Your task to perform on an android device: check out phone information Image 0: 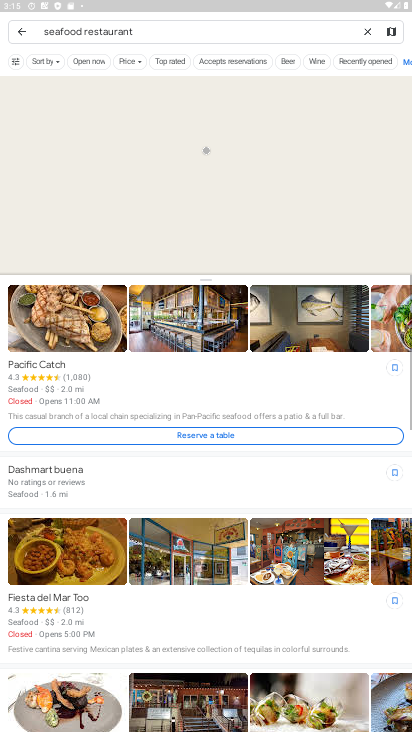
Step 0: press home button
Your task to perform on an android device: check out phone information Image 1: 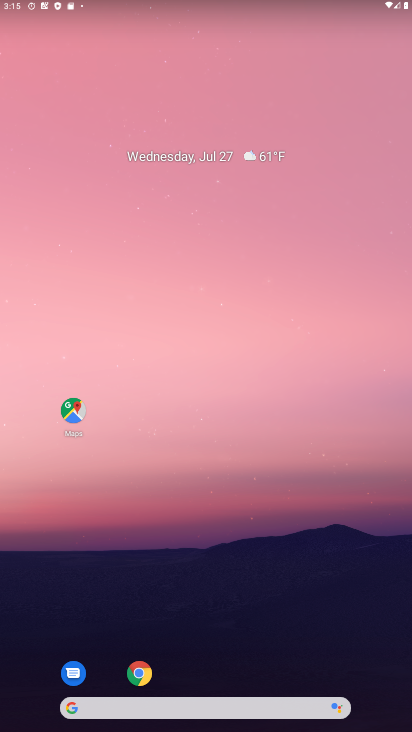
Step 1: drag from (108, 538) to (328, 120)
Your task to perform on an android device: check out phone information Image 2: 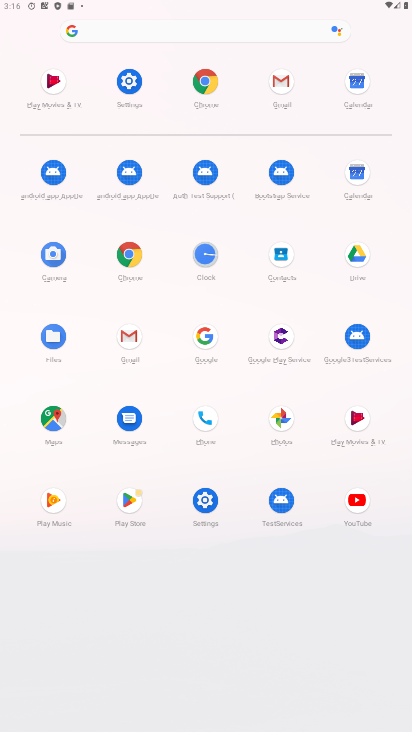
Step 2: click (276, 259)
Your task to perform on an android device: check out phone information Image 3: 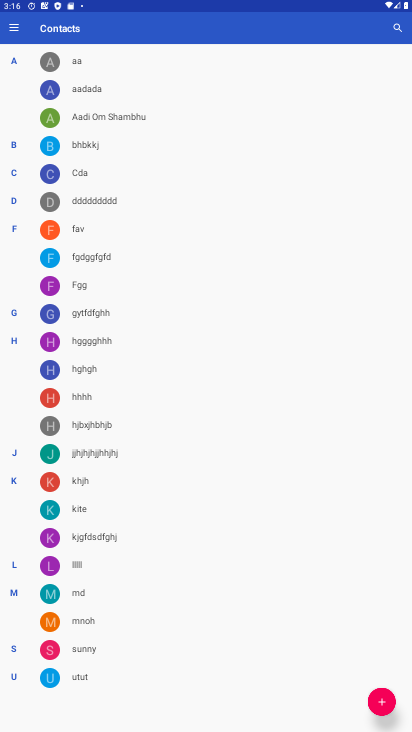
Step 3: task complete